Your task to perform on an android device: Open Chrome and go to settings Image 0: 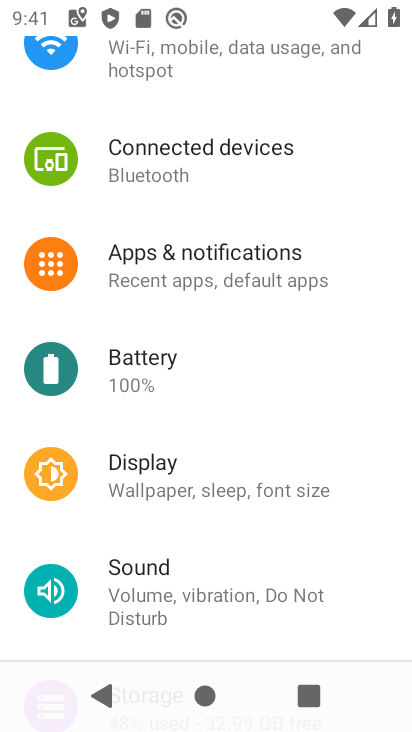
Step 0: press home button
Your task to perform on an android device: Open Chrome and go to settings Image 1: 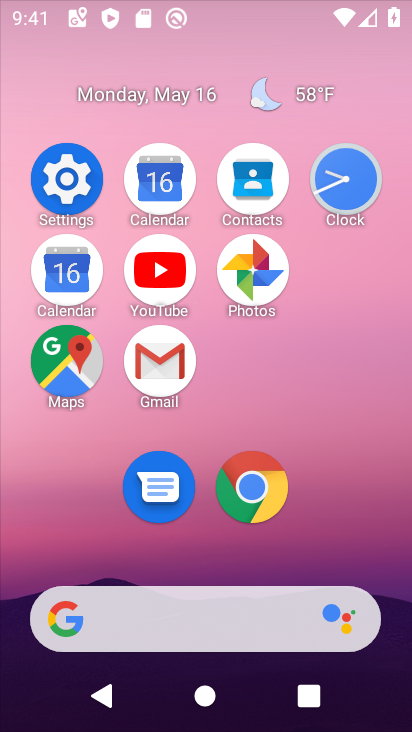
Step 1: click (242, 466)
Your task to perform on an android device: Open Chrome and go to settings Image 2: 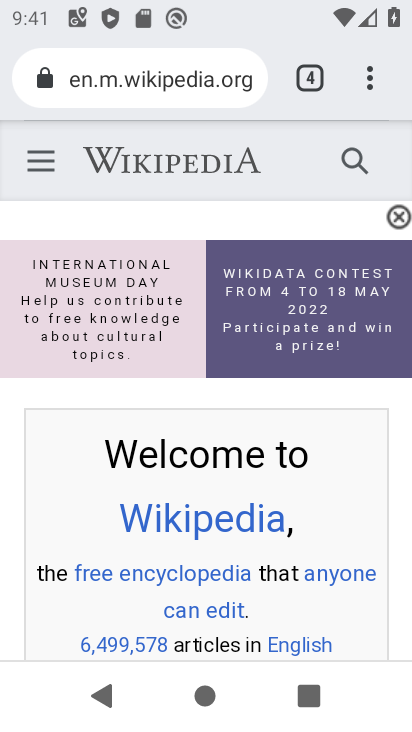
Step 2: click (371, 78)
Your task to perform on an android device: Open Chrome and go to settings Image 3: 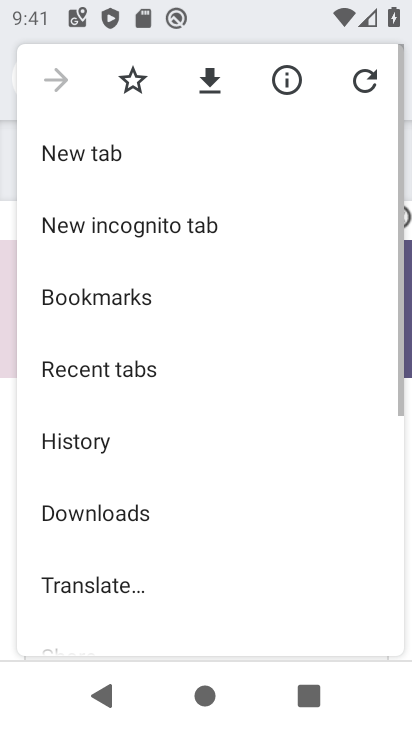
Step 3: drag from (173, 392) to (234, 117)
Your task to perform on an android device: Open Chrome and go to settings Image 4: 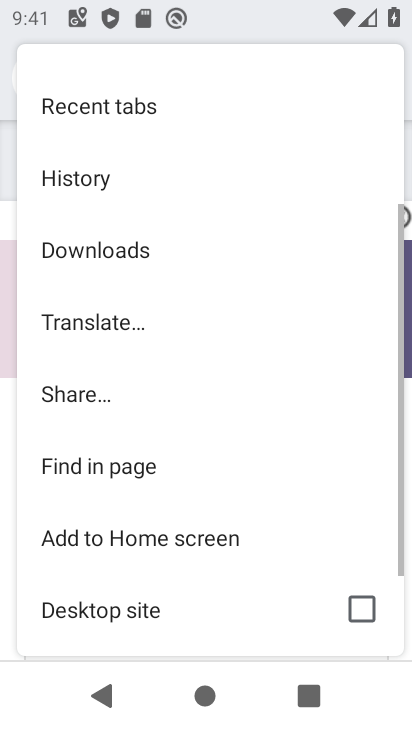
Step 4: drag from (141, 567) to (161, 134)
Your task to perform on an android device: Open Chrome and go to settings Image 5: 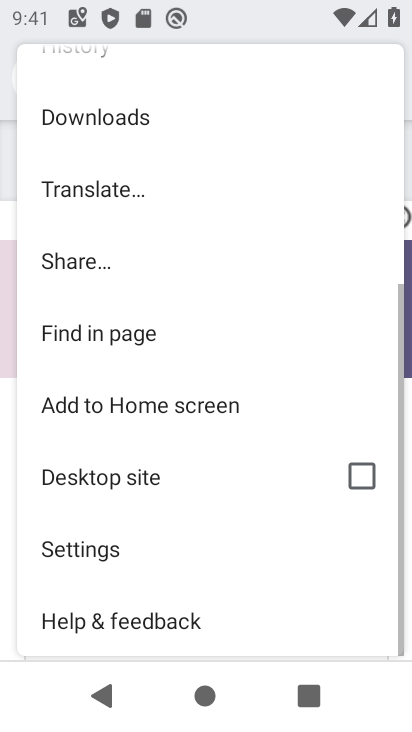
Step 5: click (110, 576)
Your task to perform on an android device: Open Chrome and go to settings Image 6: 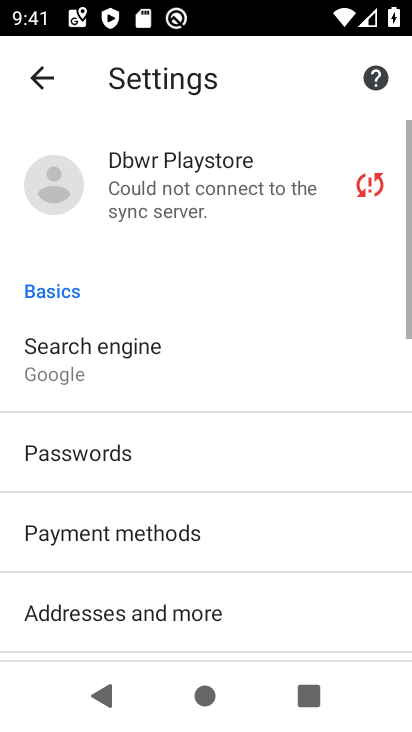
Step 6: task complete